Your task to perform on an android device: turn off picture-in-picture Image 0: 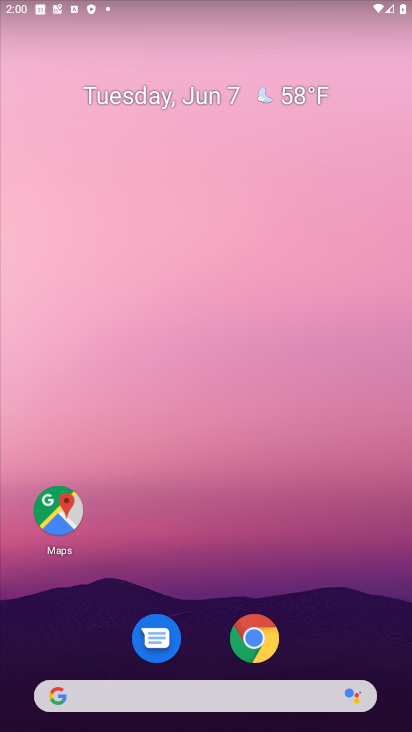
Step 0: drag from (221, 634) to (274, 266)
Your task to perform on an android device: turn off picture-in-picture Image 1: 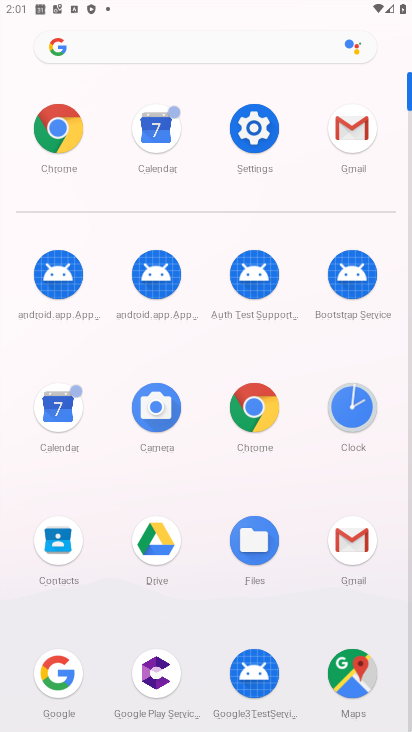
Step 1: click (244, 123)
Your task to perform on an android device: turn off picture-in-picture Image 2: 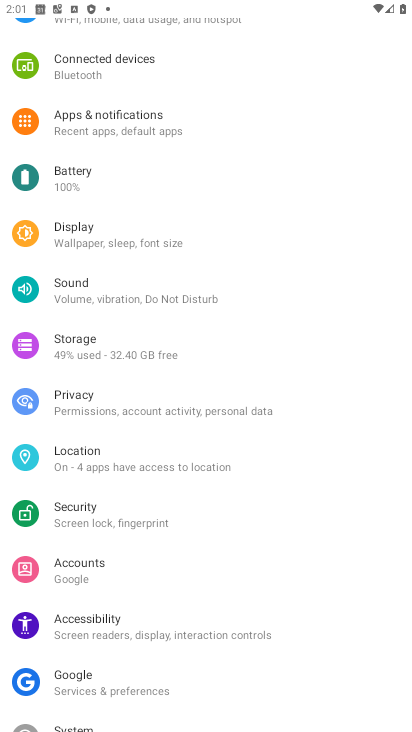
Step 2: click (109, 130)
Your task to perform on an android device: turn off picture-in-picture Image 3: 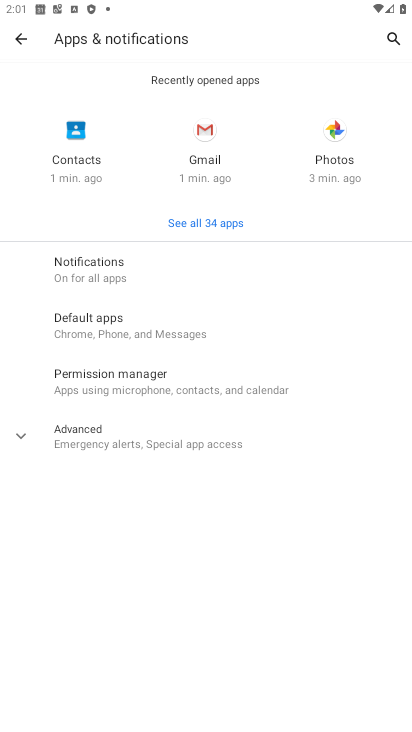
Step 3: click (112, 432)
Your task to perform on an android device: turn off picture-in-picture Image 4: 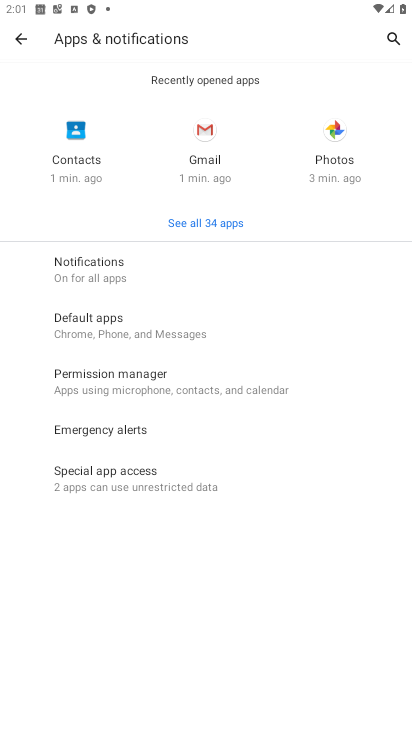
Step 4: click (152, 481)
Your task to perform on an android device: turn off picture-in-picture Image 5: 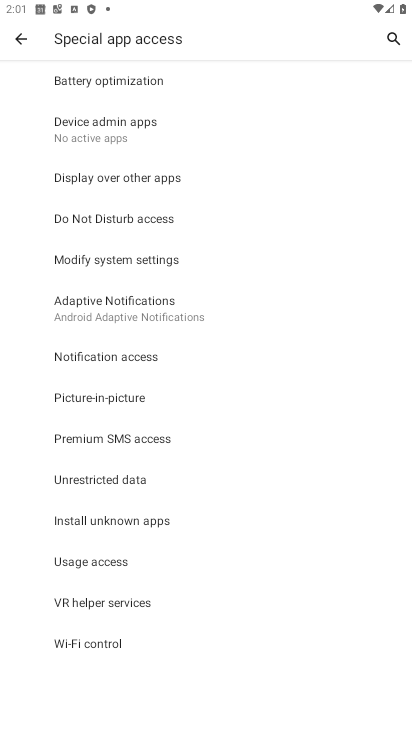
Step 5: click (116, 397)
Your task to perform on an android device: turn off picture-in-picture Image 6: 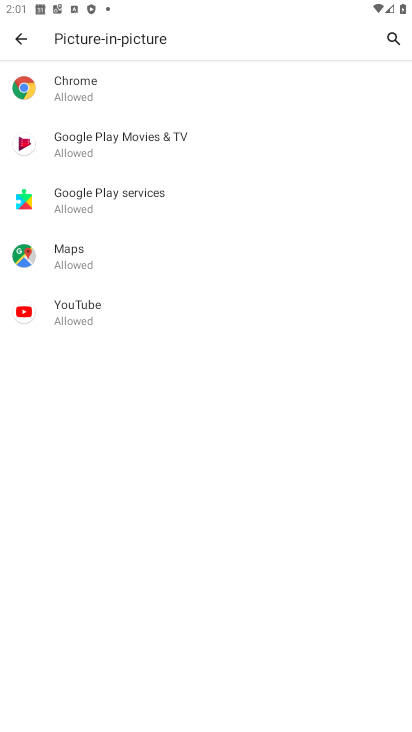
Step 6: click (136, 97)
Your task to perform on an android device: turn off picture-in-picture Image 7: 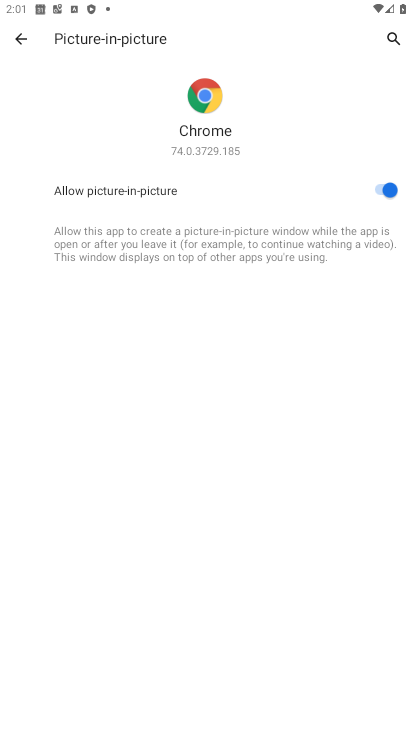
Step 7: click (373, 188)
Your task to perform on an android device: turn off picture-in-picture Image 8: 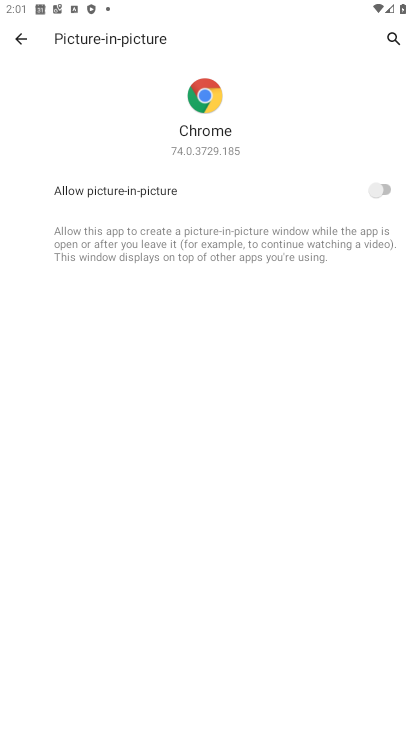
Step 8: task complete